Your task to perform on an android device: Set the phone to "Do not disturb". Image 0: 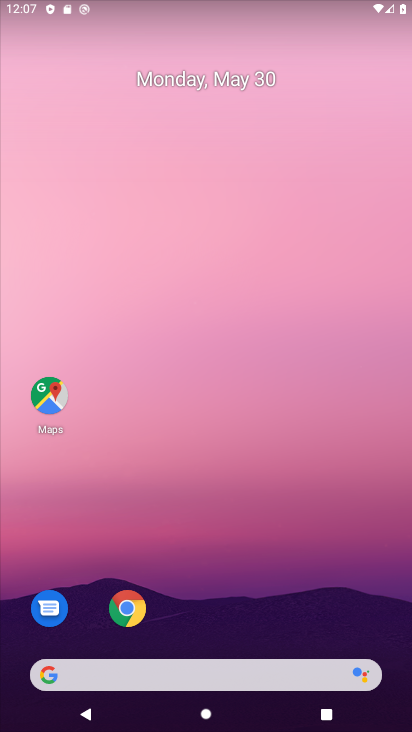
Step 0: drag from (236, 620) to (289, 48)
Your task to perform on an android device: Set the phone to "Do not disturb". Image 1: 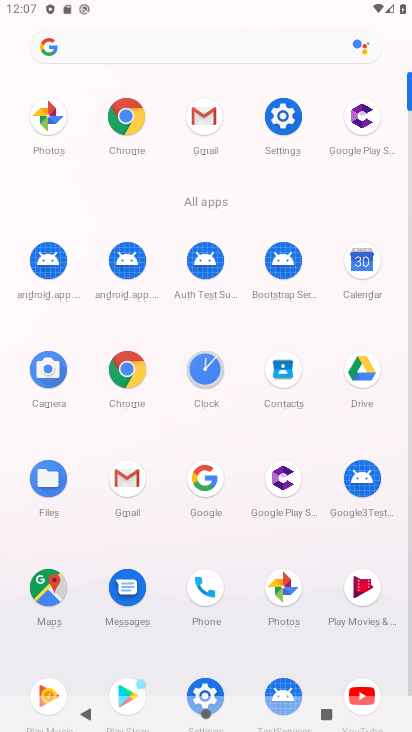
Step 1: click (285, 111)
Your task to perform on an android device: Set the phone to "Do not disturb". Image 2: 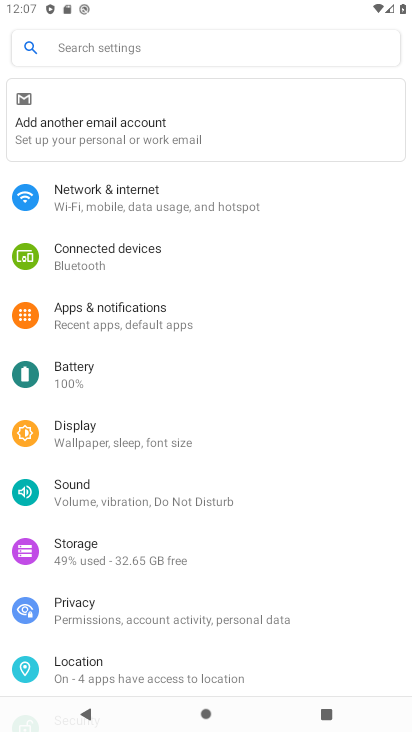
Step 2: click (108, 491)
Your task to perform on an android device: Set the phone to "Do not disturb". Image 3: 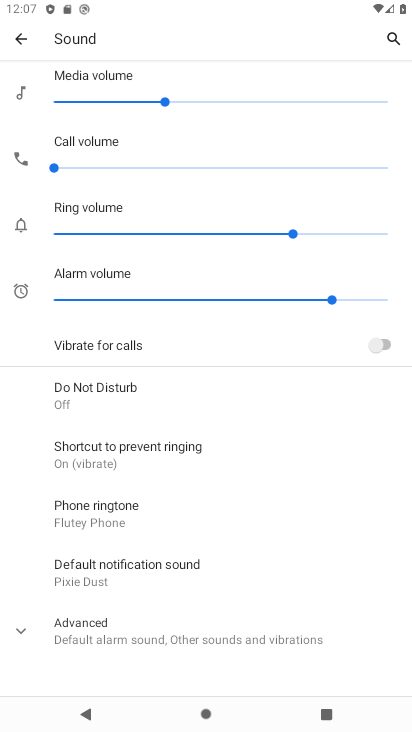
Step 3: task complete